Your task to perform on an android device: Open internet settings Image 0: 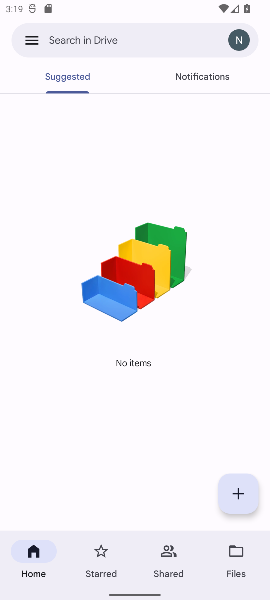
Step 0: task complete